Your task to perform on an android device: Open wifi settings Image 0: 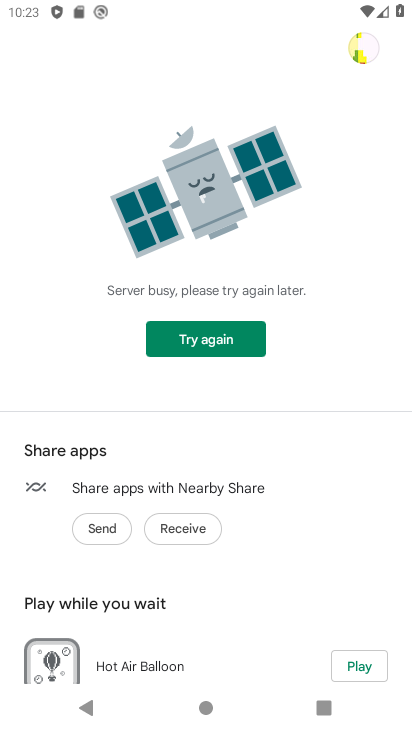
Step 0: press home button
Your task to perform on an android device: Open wifi settings Image 1: 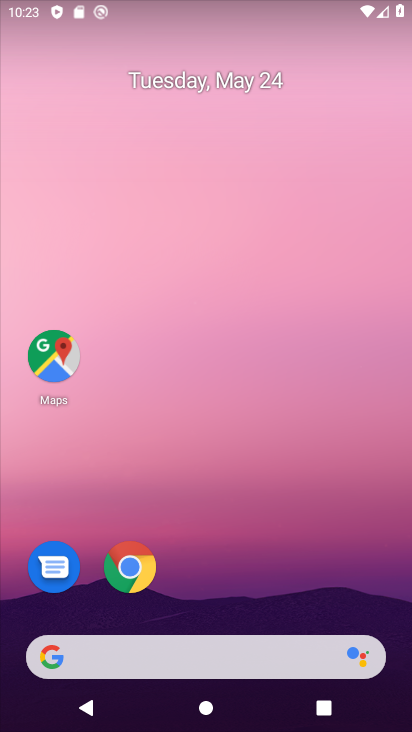
Step 1: drag from (371, 462) to (368, 265)
Your task to perform on an android device: Open wifi settings Image 2: 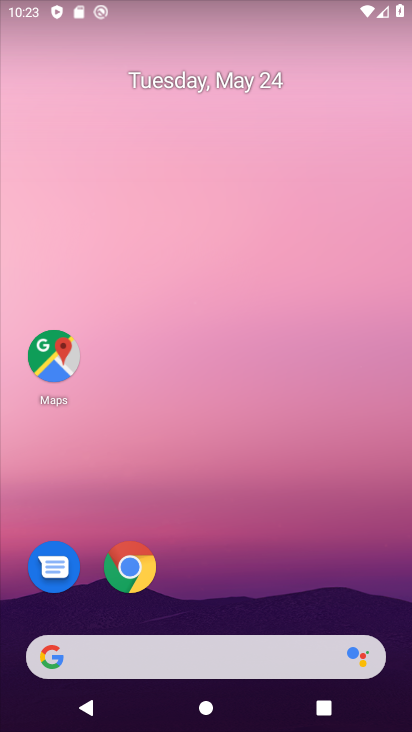
Step 2: drag from (389, 713) to (367, 280)
Your task to perform on an android device: Open wifi settings Image 3: 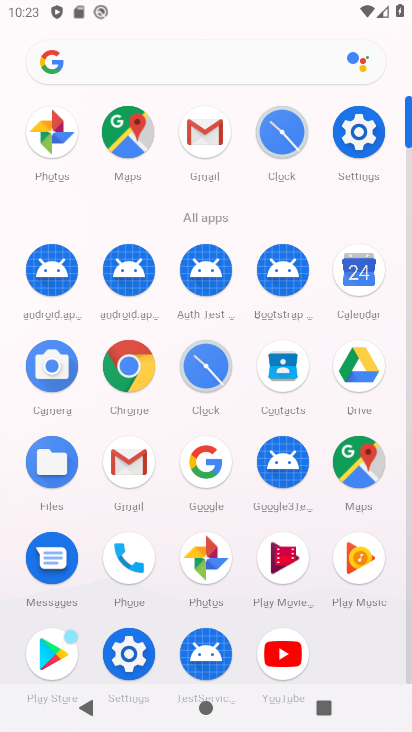
Step 3: click (118, 656)
Your task to perform on an android device: Open wifi settings Image 4: 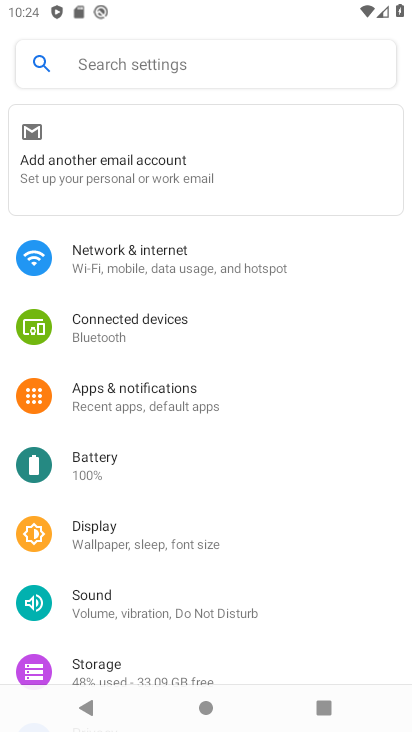
Step 4: drag from (331, 642) to (320, 393)
Your task to perform on an android device: Open wifi settings Image 5: 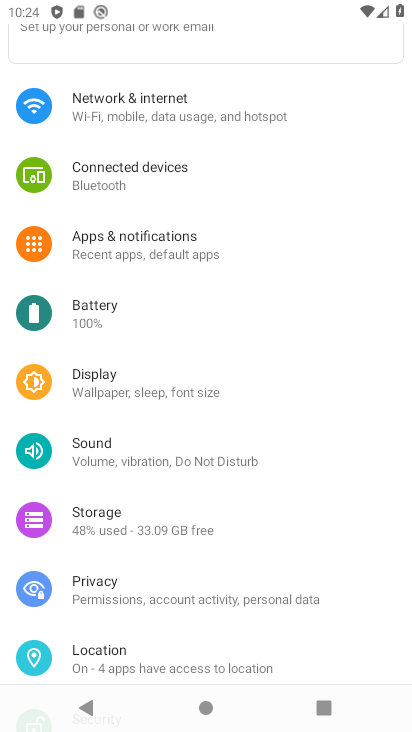
Step 5: click (141, 104)
Your task to perform on an android device: Open wifi settings Image 6: 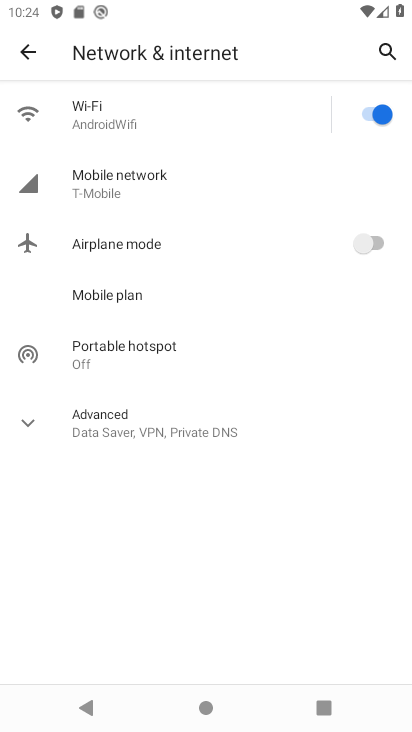
Step 6: click (134, 115)
Your task to perform on an android device: Open wifi settings Image 7: 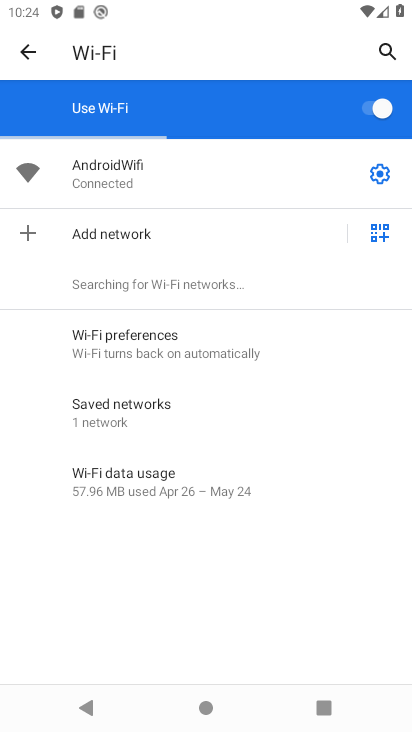
Step 7: click (369, 170)
Your task to perform on an android device: Open wifi settings Image 8: 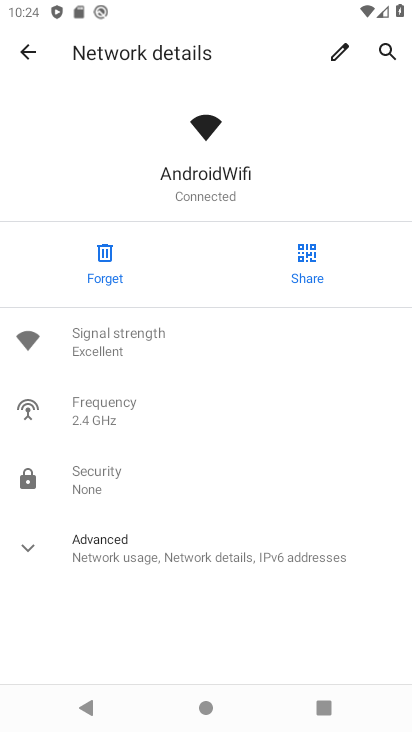
Step 8: task complete